Your task to perform on an android device: Open Google Chrome Image 0: 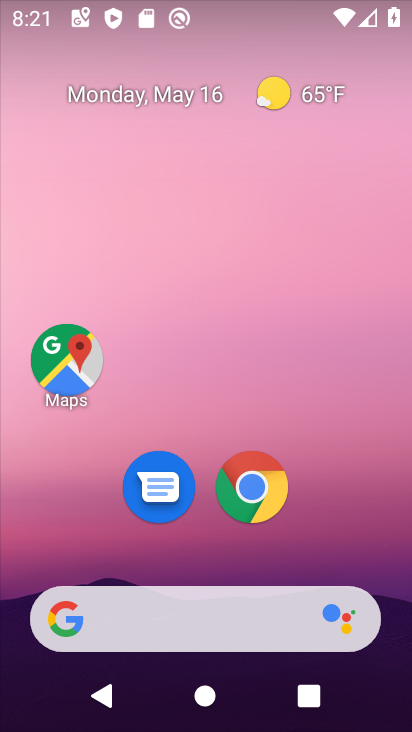
Step 0: drag from (340, 531) to (351, 96)
Your task to perform on an android device: Open Google Chrome Image 1: 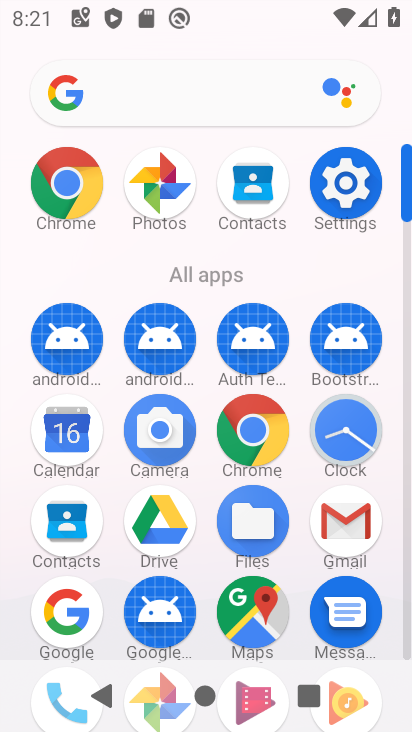
Step 1: click (275, 446)
Your task to perform on an android device: Open Google Chrome Image 2: 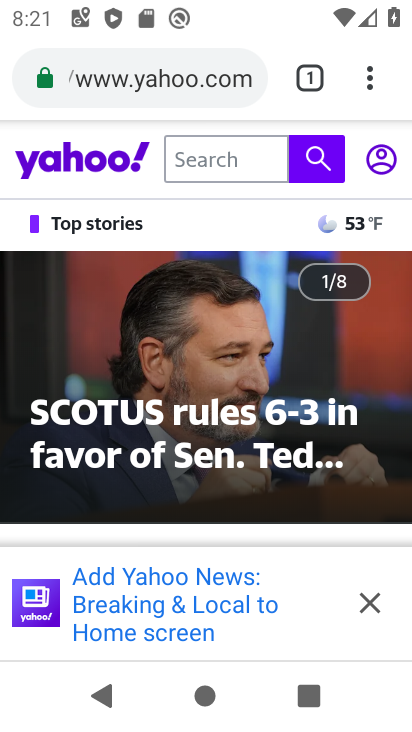
Step 2: task complete